Your task to perform on an android device: What is the news today? Image 0: 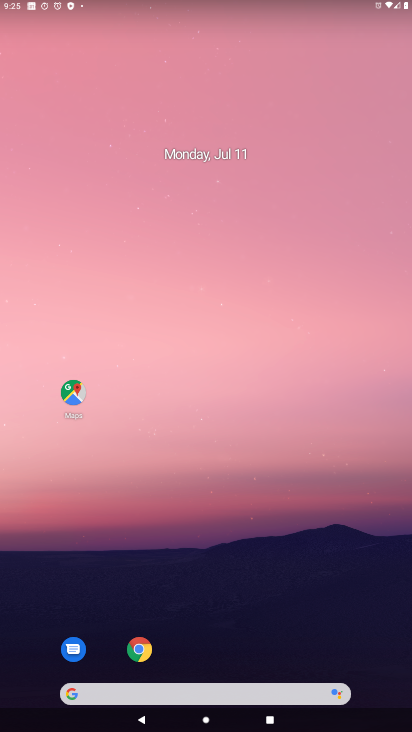
Step 0: drag from (242, 669) to (258, 101)
Your task to perform on an android device: What is the news today? Image 1: 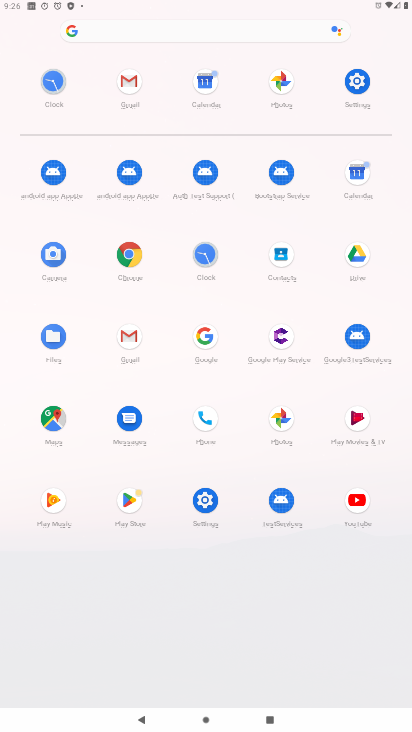
Step 1: click (128, 252)
Your task to perform on an android device: What is the news today? Image 2: 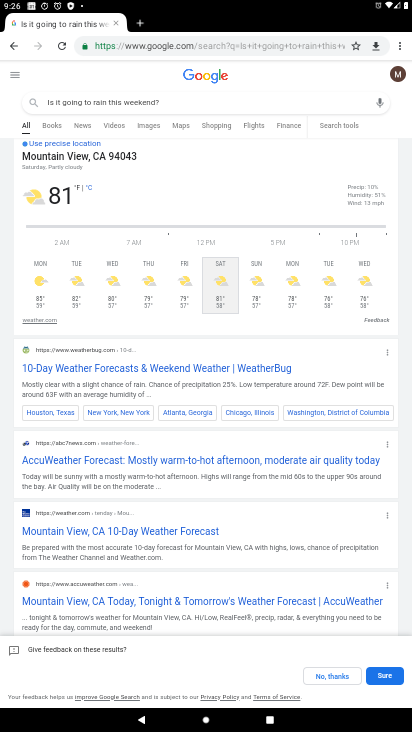
Step 2: click (293, 41)
Your task to perform on an android device: What is the news today? Image 3: 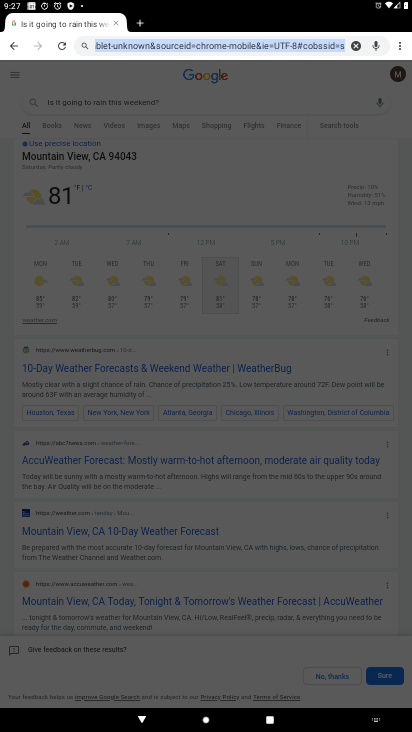
Step 3: type "What is the news today?"
Your task to perform on an android device: What is the news today? Image 4: 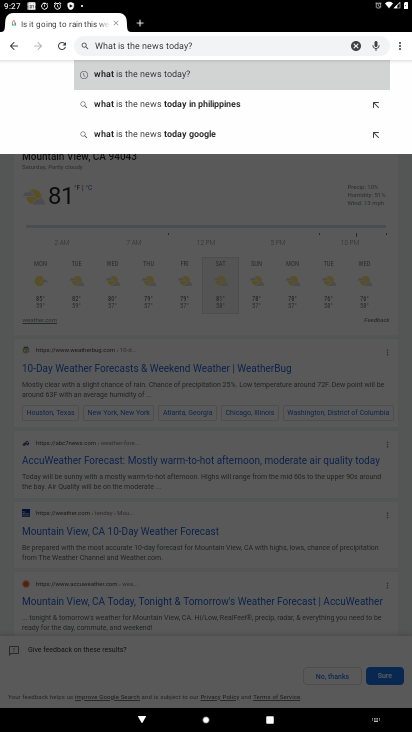
Step 4: click (180, 78)
Your task to perform on an android device: What is the news today? Image 5: 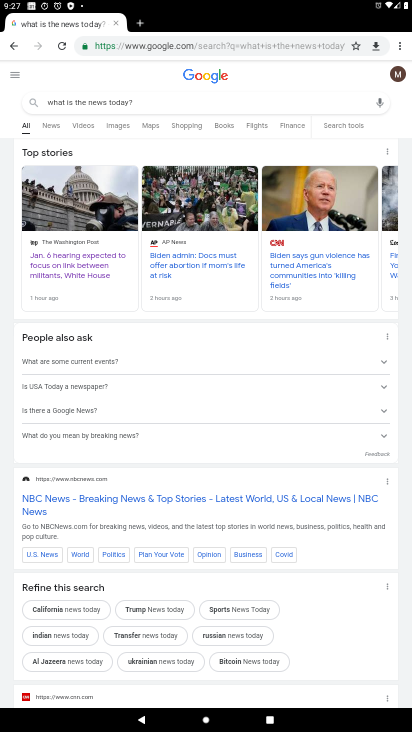
Step 5: click (70, 275)
Your task to perform on an android device: What is the news today? Image 6: 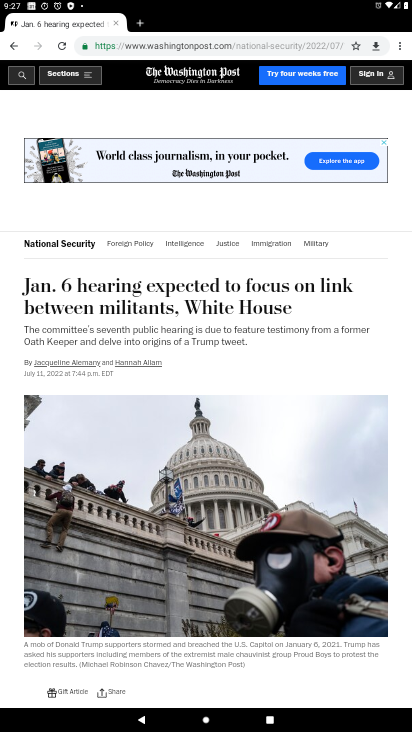
Step 6: task complete